Your task to perform on an android device: Add "duracell triple a" to the cart on walmart.com, then select checkout. Image 0: 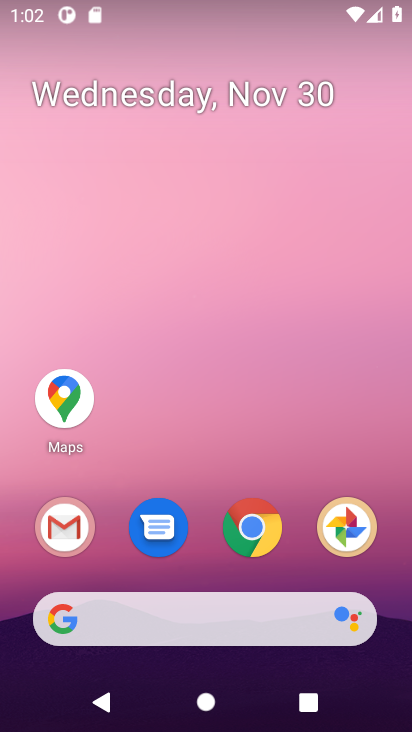
Step 0: click (243, 532)
Your task to perform on an android device: Add "duracell triple a" to the cart on walmart.com, then select checkout. Image 1: 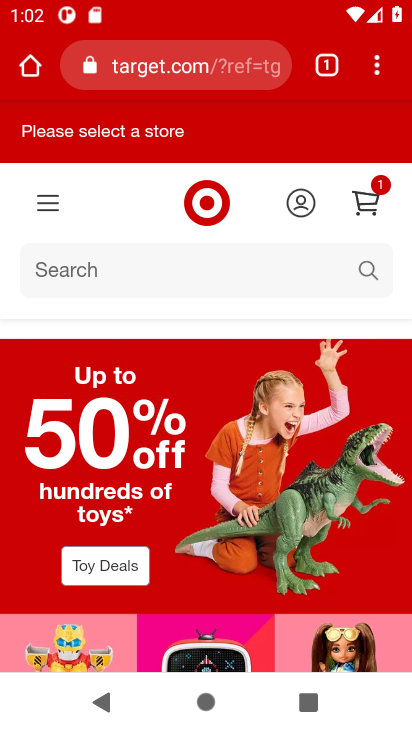
Step 1: click (168, 45)
Your task to perform on an android device: Add "duracell triple a" to the cart on walmart.com, then select checkout. Image 2: 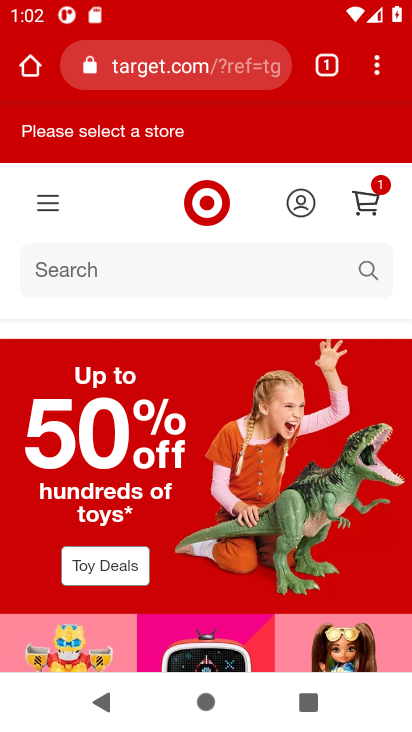
Step 2: click (168, 45)
Your task to perform on an android device: Add "duracell triple a" to the cart on walmart.com, then select checkout. Image 3: 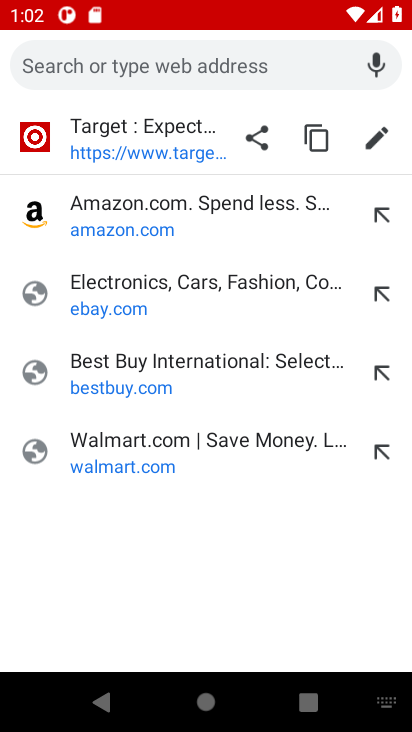
Step 3: type "walmart"
Your task to perform on an android device: Add "duracell triple a" to the cart on walmart.com, then select checkout. Image 4: 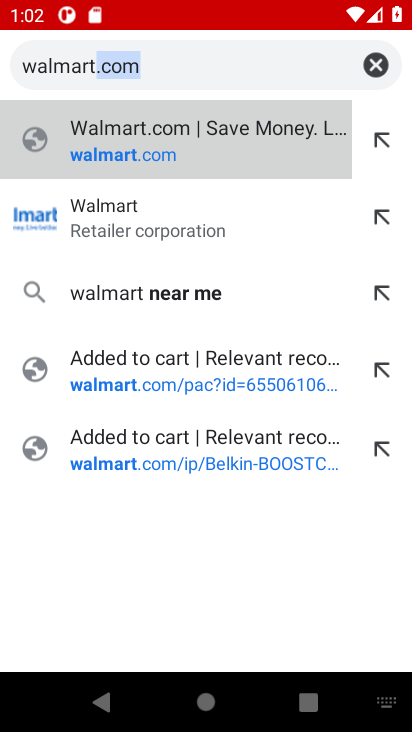
Step 4: click (195, 143)
Your task to perform on an android device: Add "duracell triple a" to the cart on walmart.com, then select checkout. Image 5: 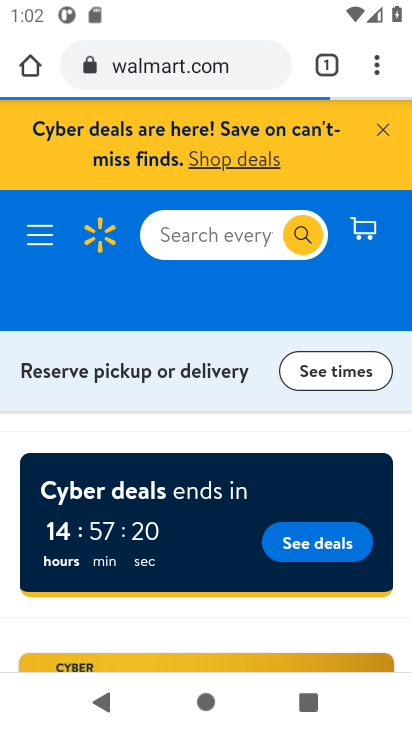
Step 5: click (179, 248)
Your task to perform on an android device: Add "duracell triple a" to the cart on walmart.com, then select checkout. Image 6: 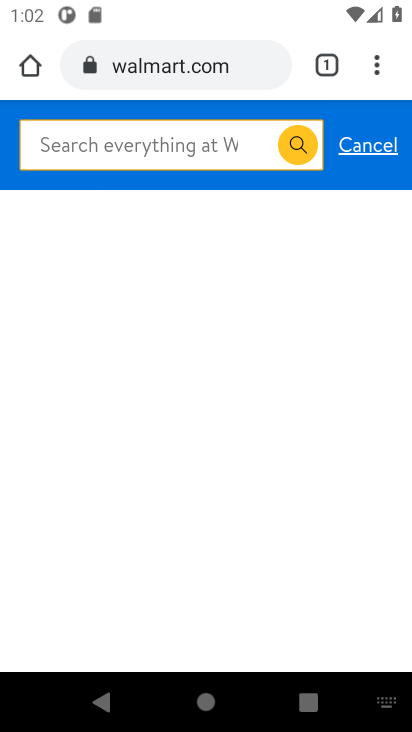
Step 6: type "duracell"
Your task to perform on an android device: Add "duracell triple a" to the cart on walmart.com, then select checkout. Image 7: 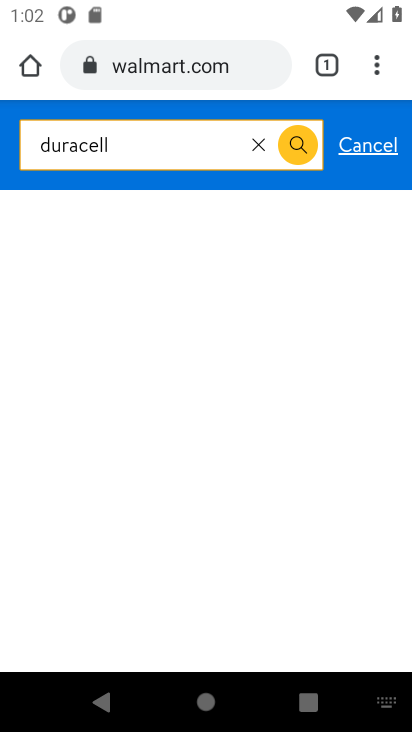
Step 7: click (298, 143)
Your task to perform on an android device: Add "duracell triple a" to the cart on walmart.com, then select checkout. Image 8: 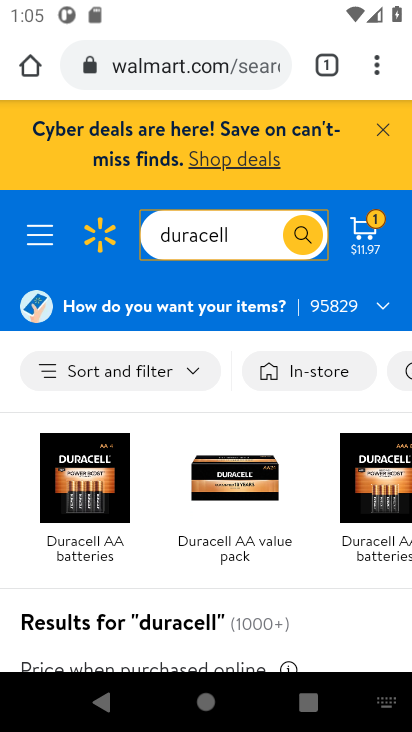
Step 8: task complete